Your task to perform on an android device: Open Wikipedia Image 0: 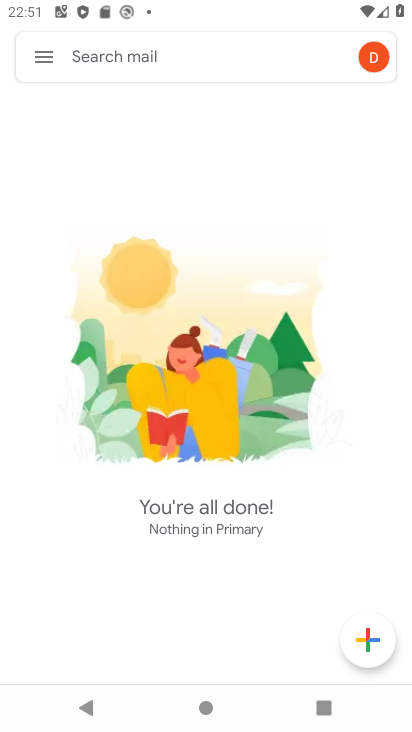
Step 0: press home button
Your task to perform on an android device: Open Wikipedia Image 1: 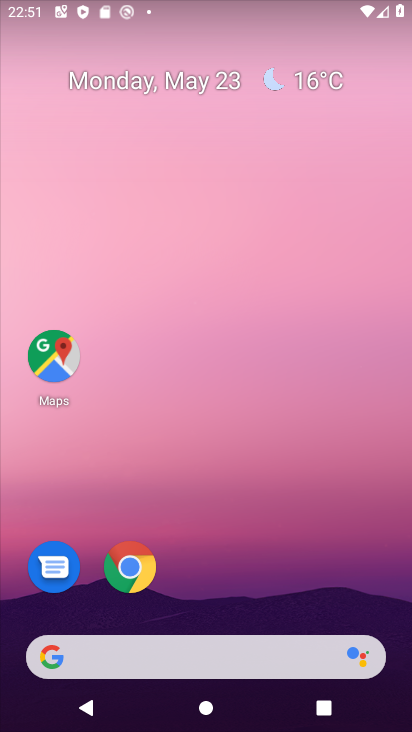
Step 1: click (123, 664)
Your task to perform on an android device: Open Wikipedia Image 2: 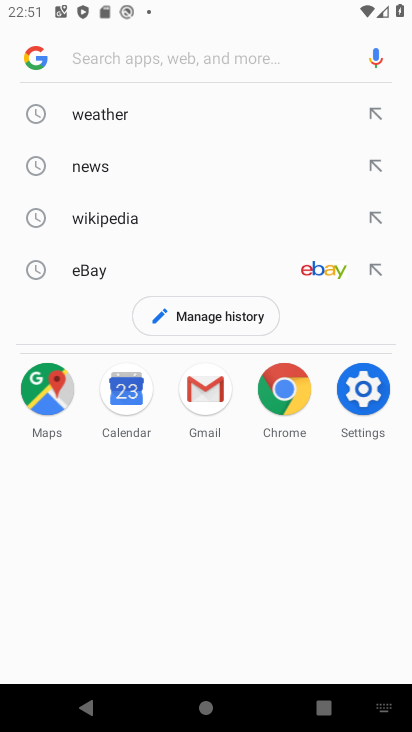
Step 2: type "wikipedia"
Your task to perform on an android device: Open Wikipedia Image 3: 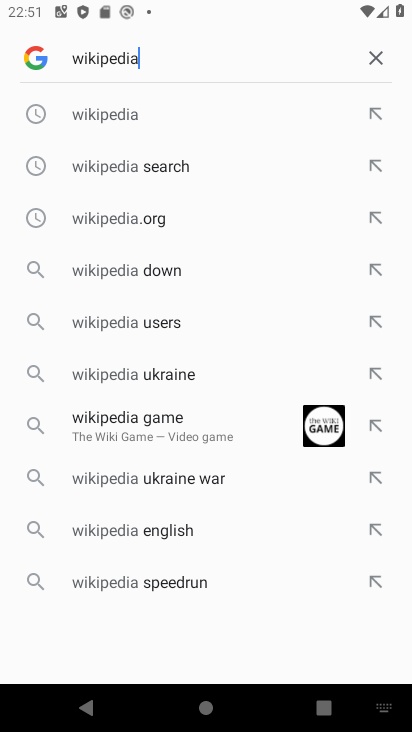
Step 3: click (111, 106)
Your task to perform on an android device: Open Wikipedia Image 4: 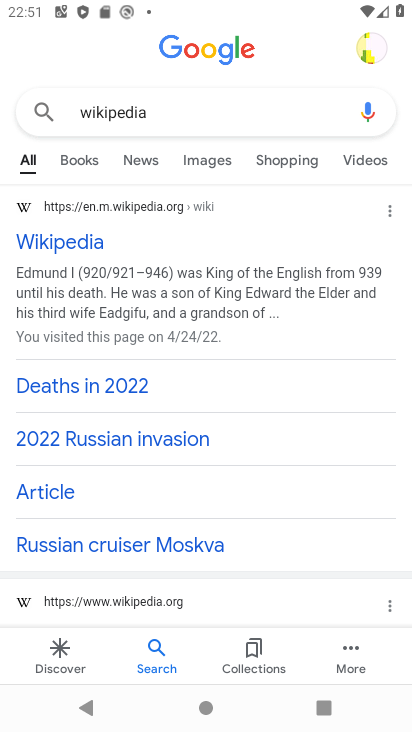
Step 4: click (38, 234)
Your task to perform on an android device: Open Wikipedia Image 5: 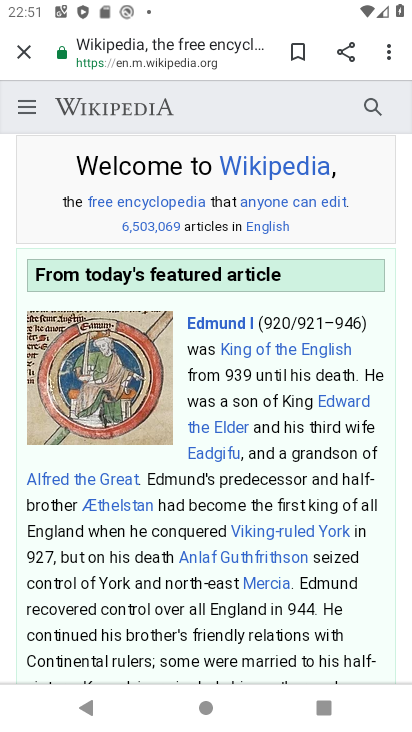
Step 5: task complete